Your task to perform on an android device: set the timer Image 0: 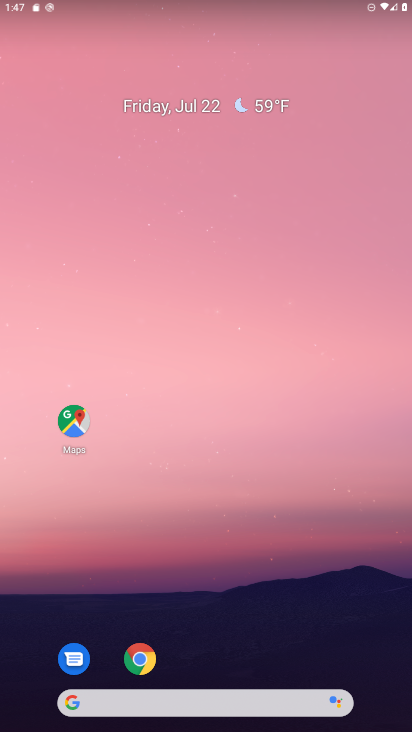
Step 0: drag from (315, 656) to (292, 114)
Your task to perform on an android device: set the timer Image 1: 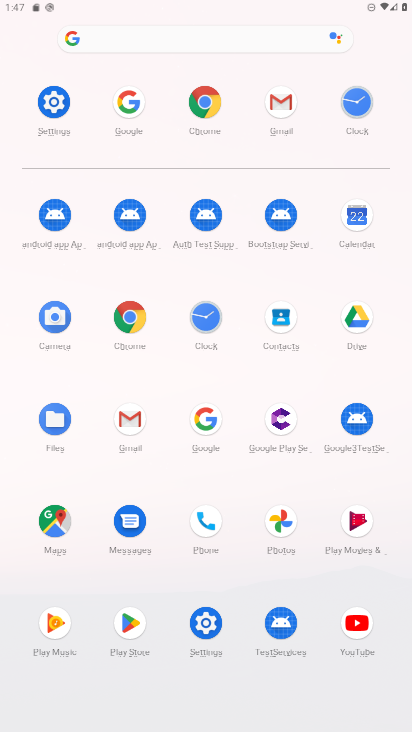
Step 1: click (197, 316)
Your task to perform on an android device: set the timer Image 2: 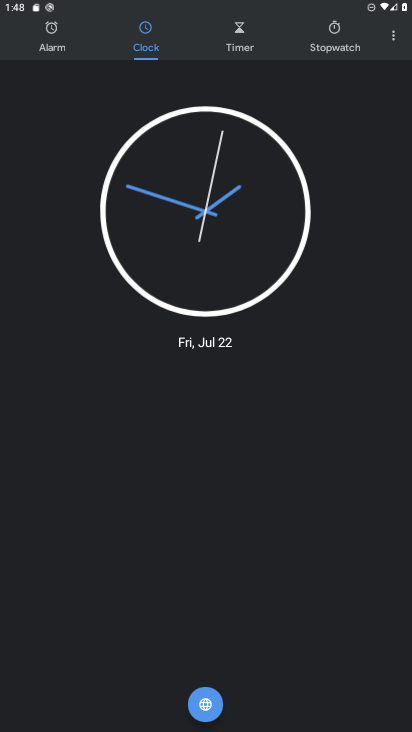
Step 2: click (250, 44)
Your task to perform on an android device: set the timer Image 3: 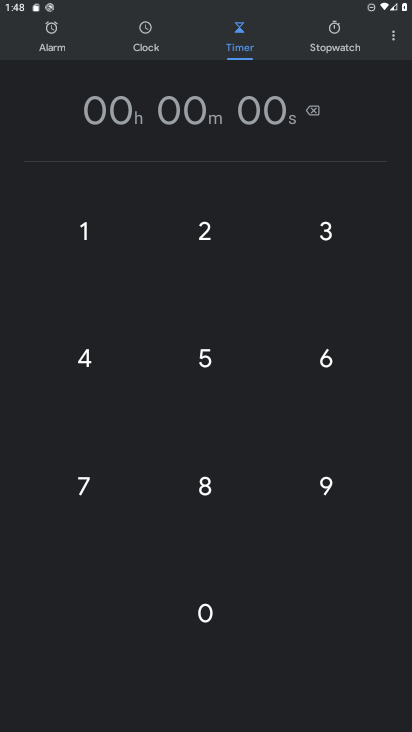
Step 3: click (212, 231)
Your task to perform on an android device: set the timer Image 4: 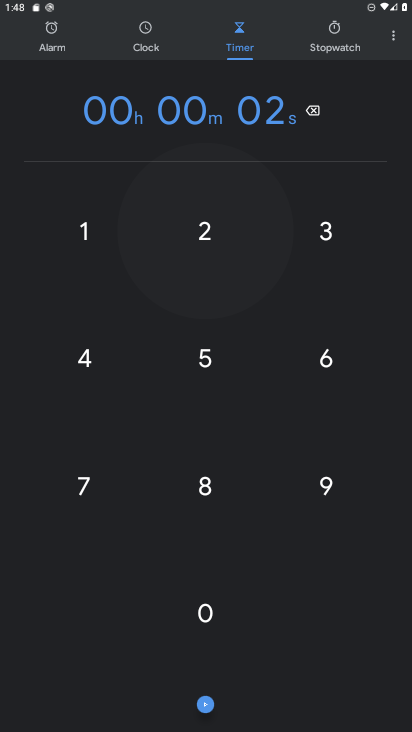
Step 4: click (211, 352)
Your task to perform on an android device: set the timer Image 5: 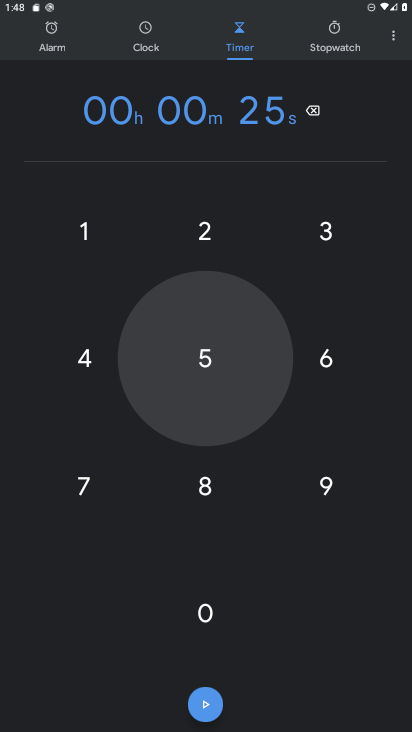
Step 5: click (187, 239)
Your task to perform on an android device: set the timer Image 6: 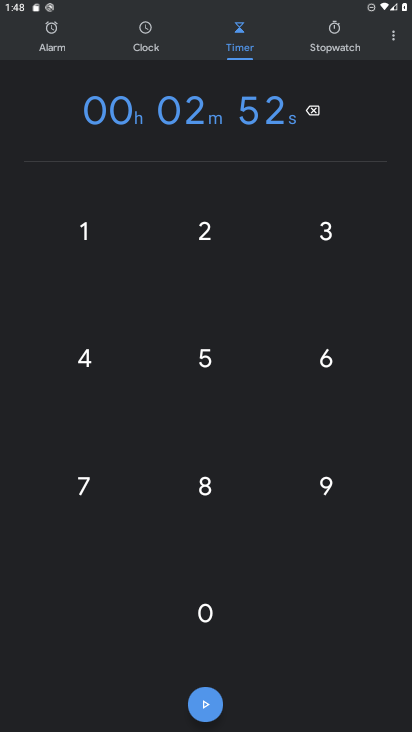
Step 6: click (212, 319)
Your task to perform on an android device: set the timer Image 7: 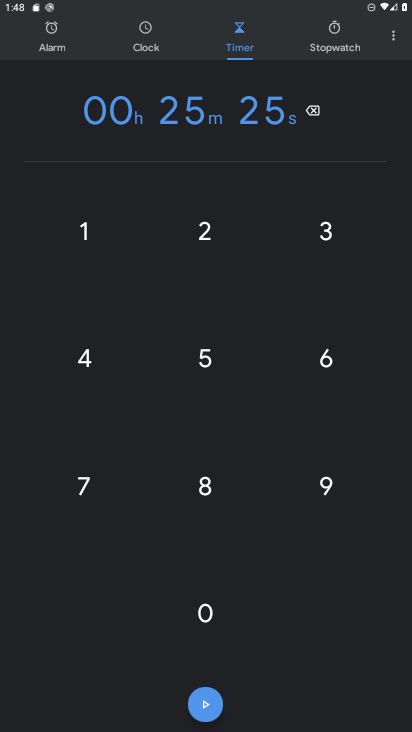
Step 7: click (189, 255)
Your task to perform on an android device: set the timer Image 8: 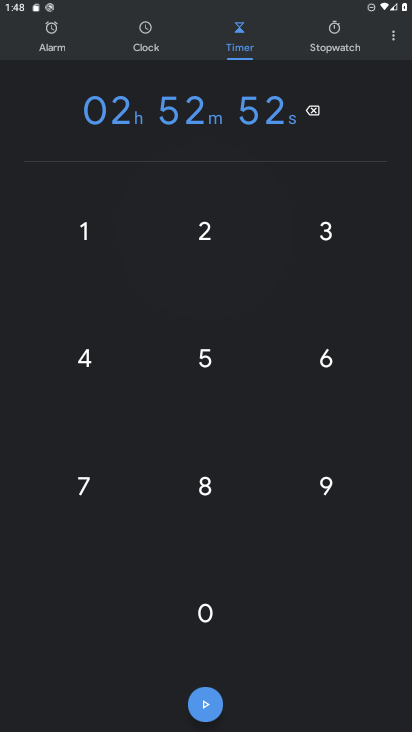
Step 8: click (200, 341)
Your task to perform on an android device: set the timer Image 9: 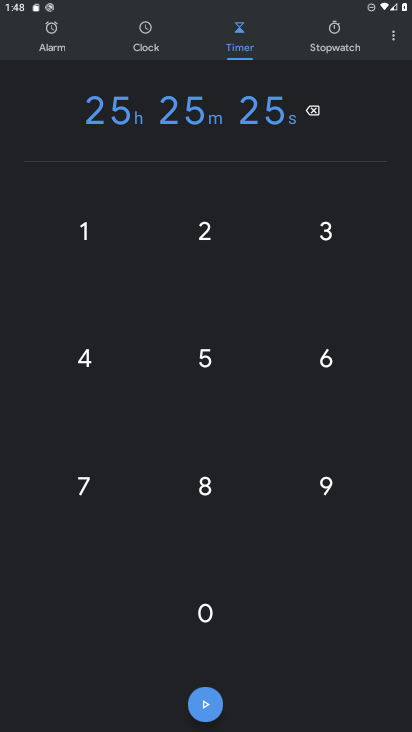
Step 9: click (214, 714)
Your task to perform on an android device: set the timer Image 10: 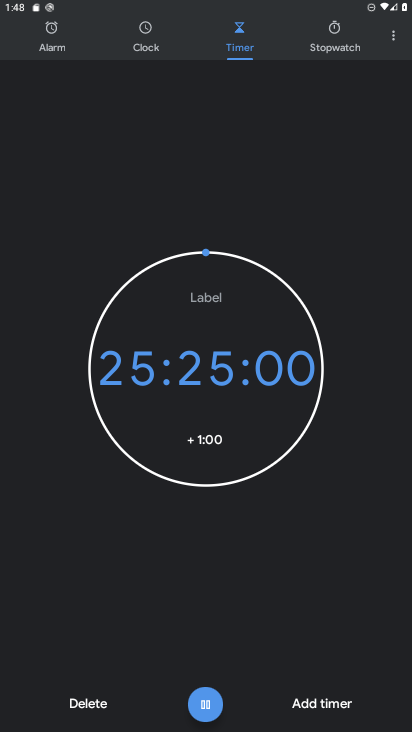
Step 10: task complete